Your task to perform on an android device: Open calendar and show me the first week of next month Image 0: 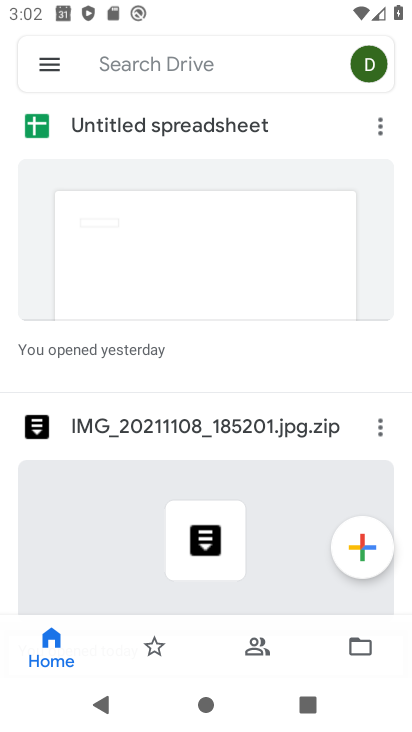
Step 0: press home button
Your task to perform on an android device: Open calendar and show me the first week of next month Image 1: 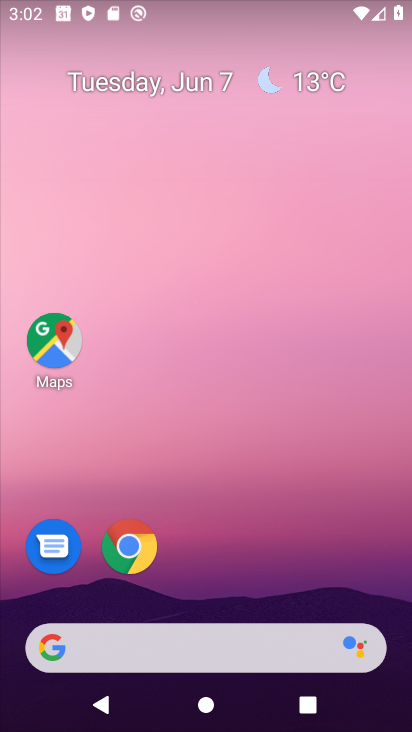
Step 1: click (147, 87)
Your task to perform on an android device: Open calendar and show me the first week of next month Image 2: 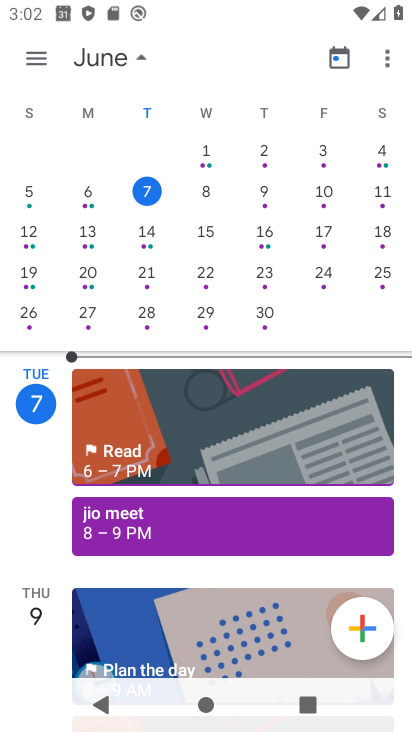
Step 2: task complete